Your task to perform on an android device: Do I have any events this weekend? Image 0: 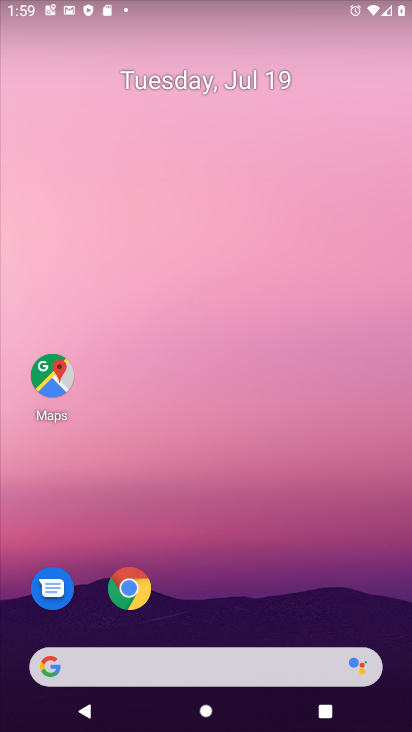
Step 0: drag from (362, 656) to (209, 50)
Your task to perform on an android device: Do I have any events this weekend? Image 1: 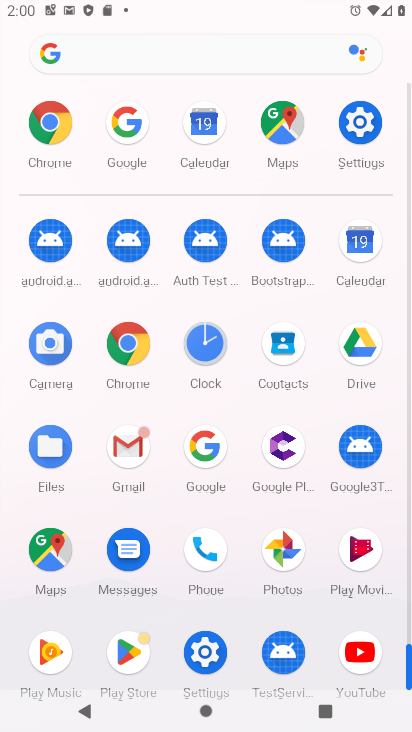
Step 1: click (362, 241)
Your task to perform on an android device: Do I have any events this weekend? Image 2: 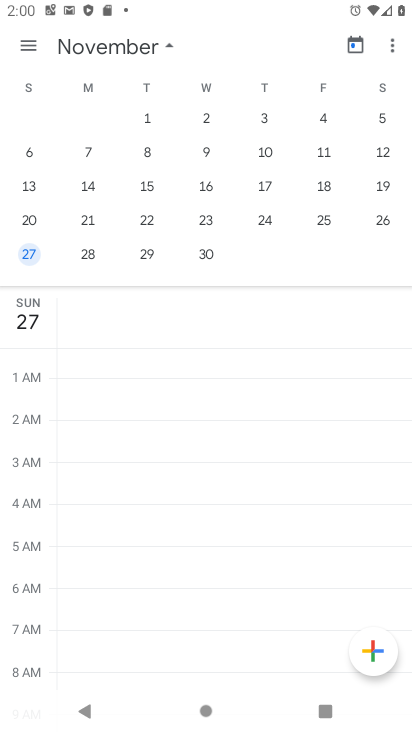
Step 2: task complete